Your task to perform on an android device: toggle notification dots Image 0: 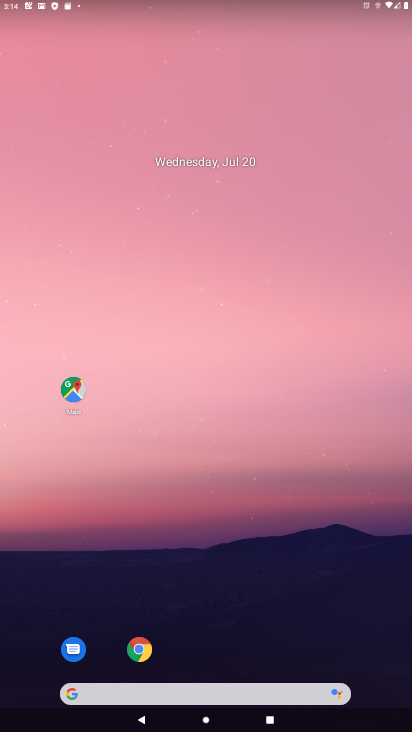
Step 0: drag from (191, 692) to (360, 24)
Your task to perform on an android device: toggle notification dots Image 1: 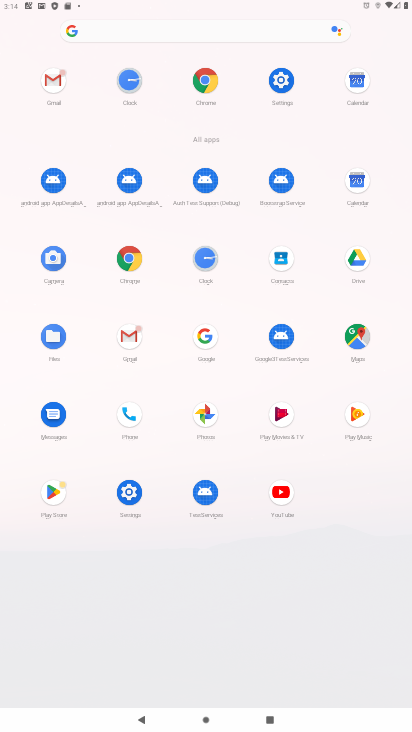
Step 1: click (280, 80)
Your task to perform on an android device: toggle notification dots Image 2: 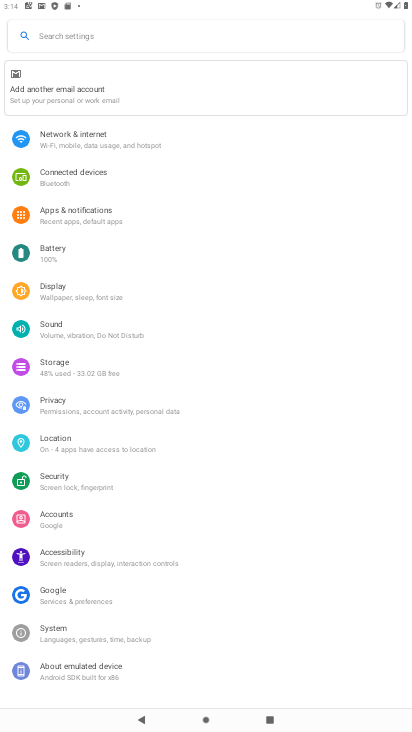
Step 2: click (86, 217)
Your task to perform on an android device: toggle notification dots Image 3: 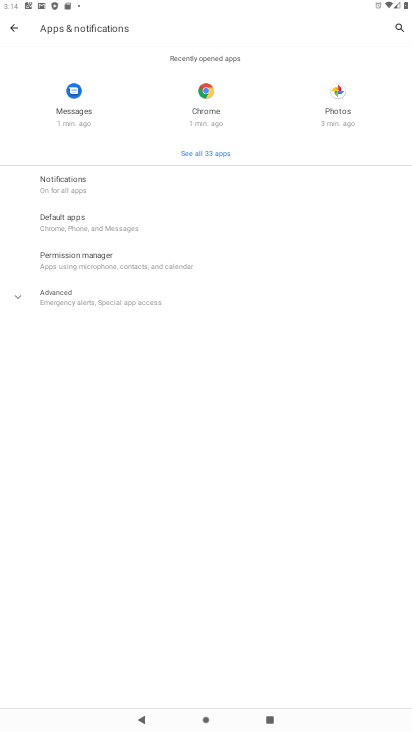
Step 3: click (72, 177)
Your task to perform on an android device: toggle notification dots Image 4: 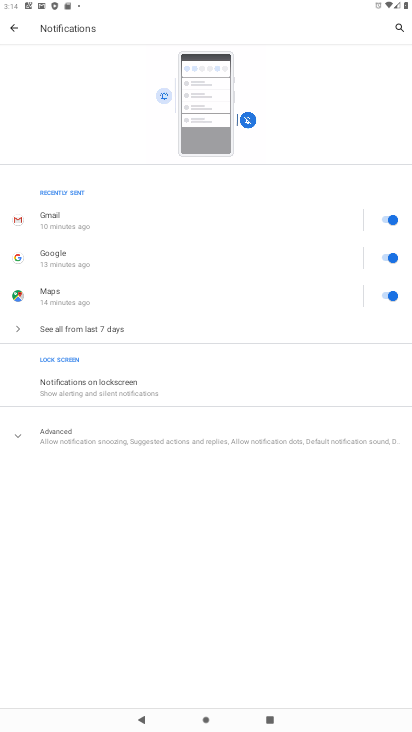
Step 4: click (67, 442)
Your task to perform on an android device: toggle notification dots Image 5: 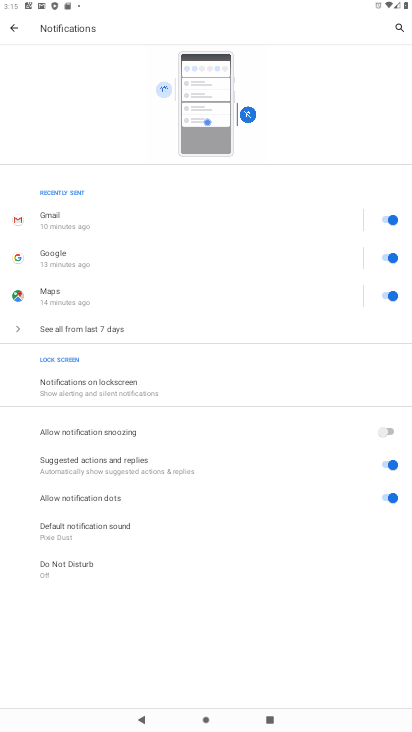
Step 5: click (386, 498)
Your task to perform on an android device: toggle notification dots Image 6: 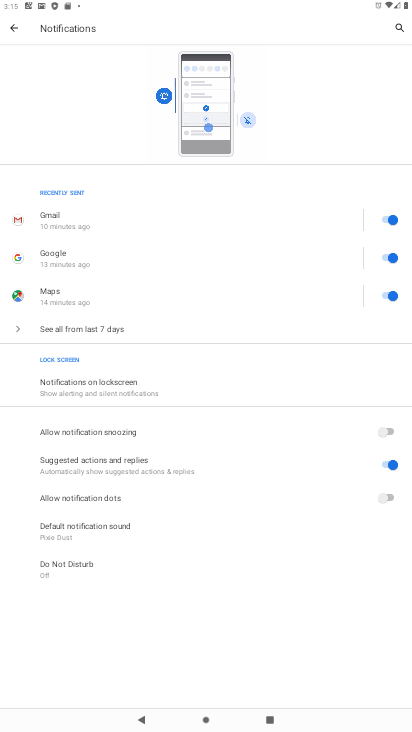
Step 6: task complete